Your task to perform on an android device: turn off javascript in the chrome app Image 0: 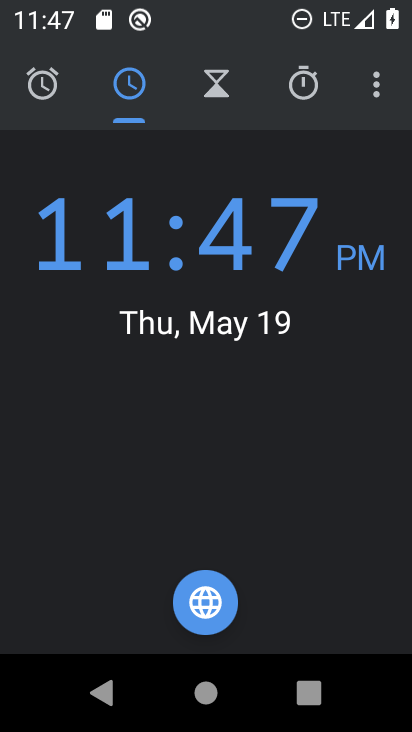
Step 0: press home button
Your task to perform on an android device: turn off javascript in the chrome app Image 1: 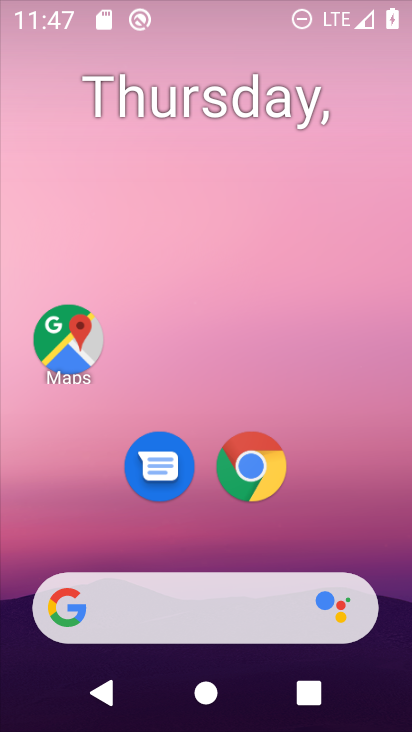
Step 1: drag from (221, 581) to (260, 45)
Your task to perform on an android device: turn off javascript in the chrome app Image 2: 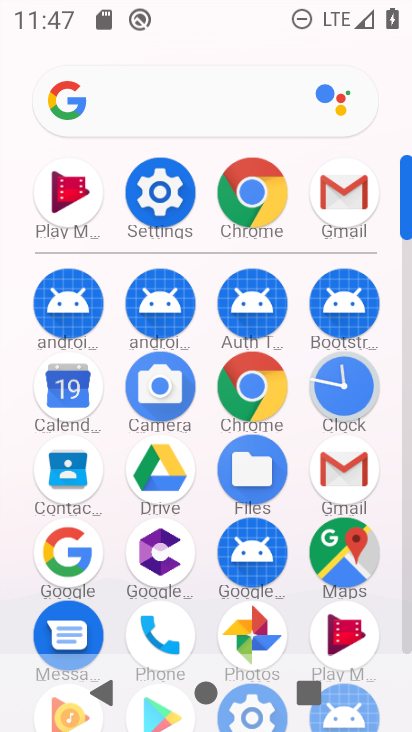
Step 2: click (251, 398)
Your task to perform on an android device: turn off javascript in the chrome app Image 3: 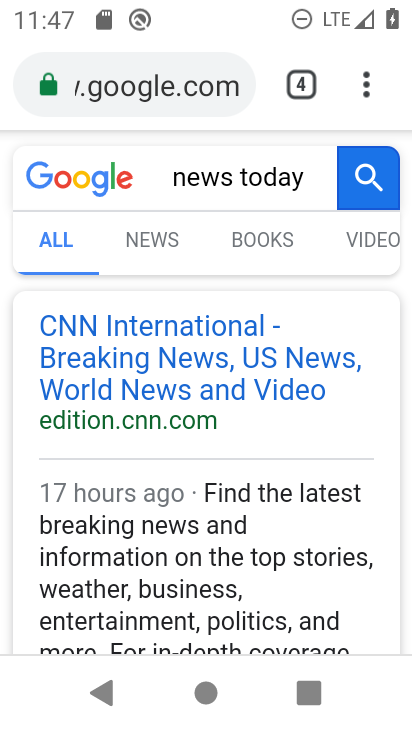
Step 3: drag from (365, 86) to (144, 618)
Your task to perform on an android device: turn off javascript in the chrome app Image 4: 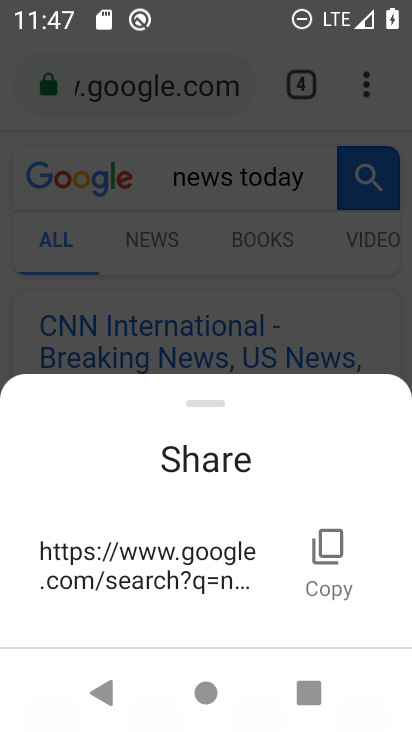
Step 4: click (294, 270)
Your task to perform on an android device: turn off javascript in the chrome app Image 5: 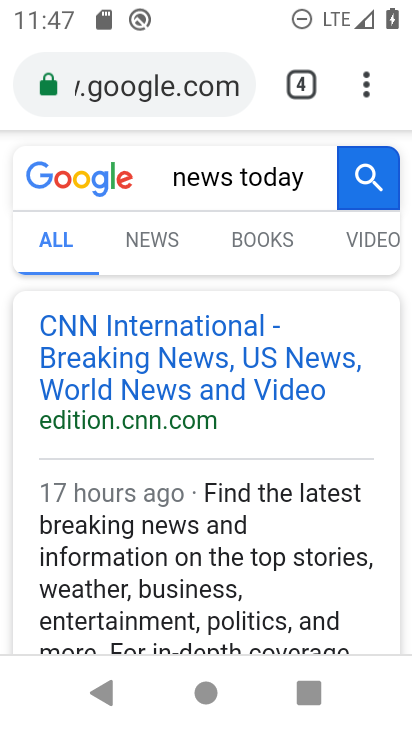
Step 5: click (366, 85)
Your task to perform on an android device: turn off javascript in the chrome app Image 6: 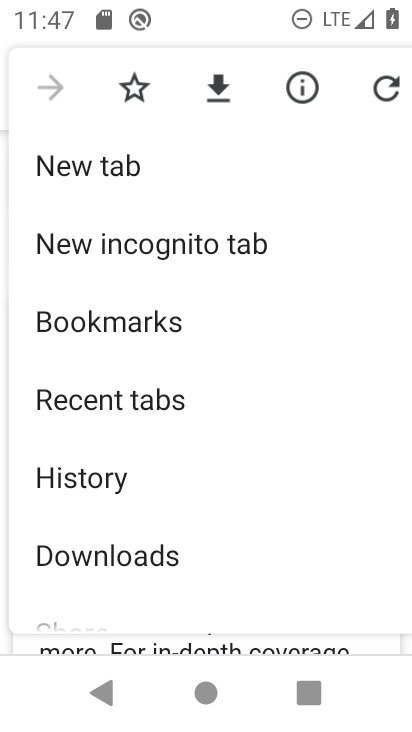
Step 6: drag from (191, 566) to (283, 128)
Your task to perform on an android device: turn off javascript in the chrome app Image 7: 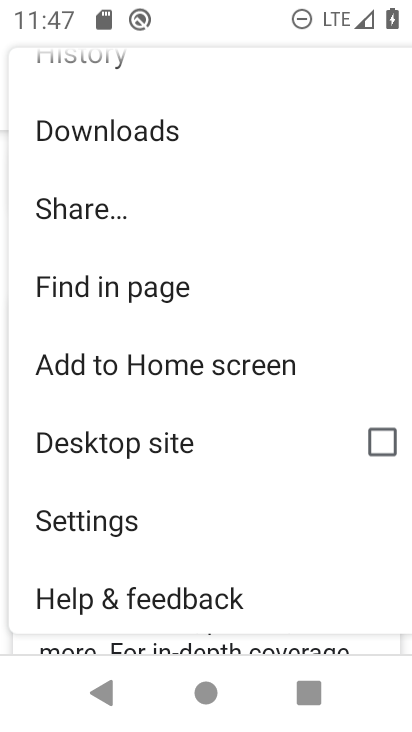
Step 7: click (147, 529)
Your task to perform on an android device: turn off javascript in the chrome app Image 8: 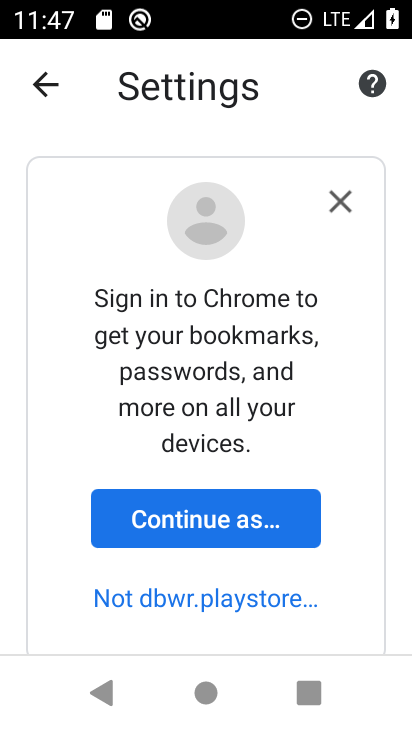
Step 8: drag from (115, 644) to (167, 95)
Your task to perform on an android device: turn off javascript in the chrome app Image 9: 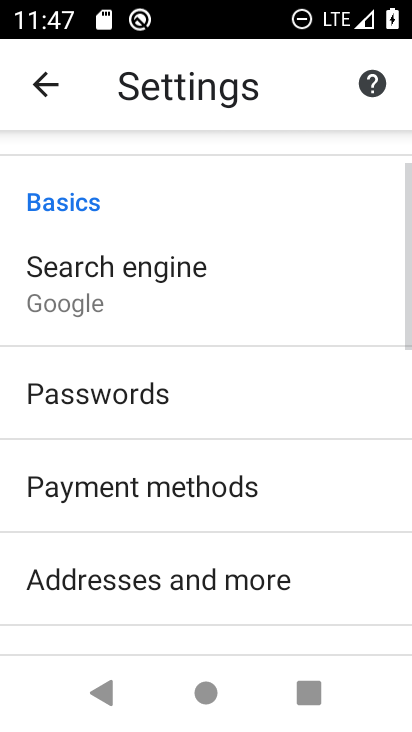
Step 9: drag from (207, 558) to (234, 210)
Your task to perform on an android device: turn off javascript in the chrome app Image 10: 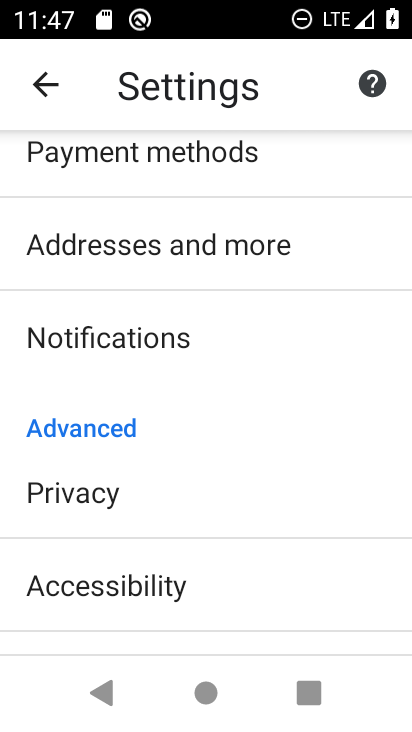
Step 10: drag from (149, 589) to (200, 309)
Your task to perform on an android device: turn off javascript in the chrome app Image 11: 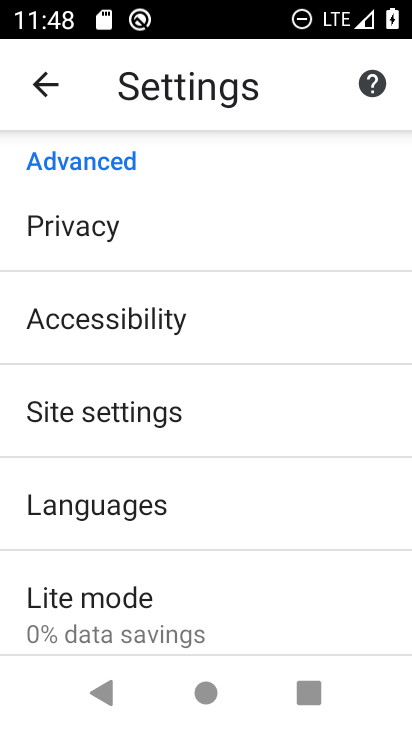
Step 11: click (158, 430)
Your task to perform on an android device: turn off javascript in the chrome app Image 12: 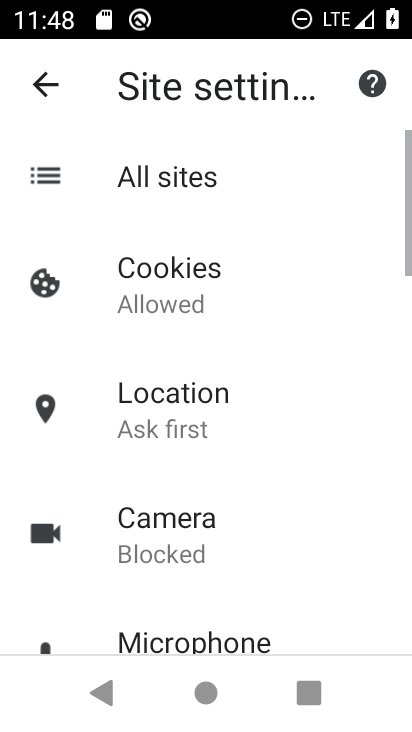
Step 12: drag from (142, 571) to (248, 114)
Your task to perform on an android device: turn off javascript in the chrome app Image 13: 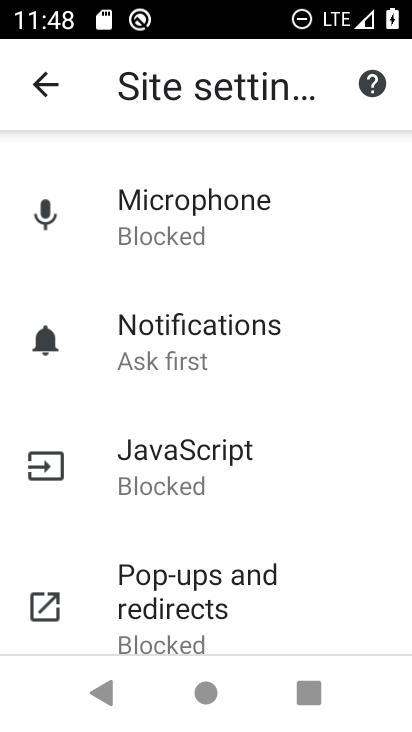
Step 13: click (183, 463)
Your task to perform on an android device: turn off javascript in the chrome app Image 14: 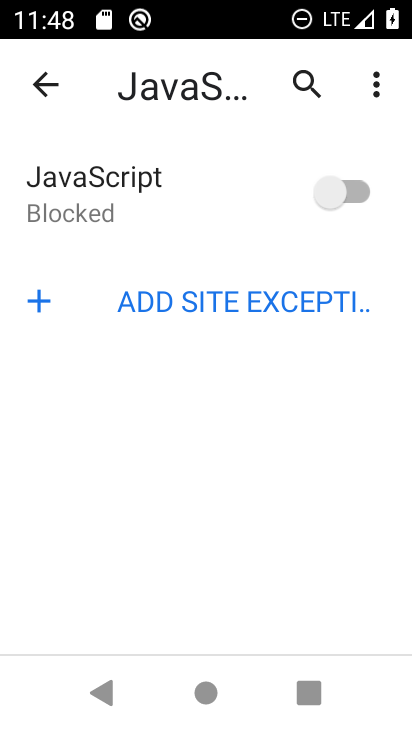
Step 14: task complete